Your task to perform on an android device: change the clock display to show seconds Image 0: 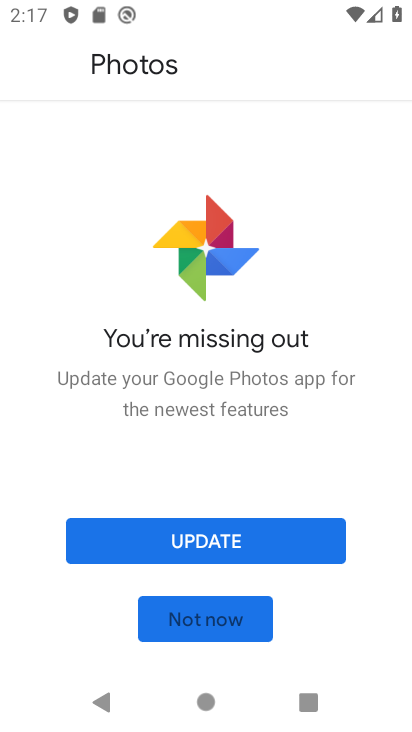
Step 0: press home button
Your task to perform on an android device: change the clock display to show seconds Image 1: 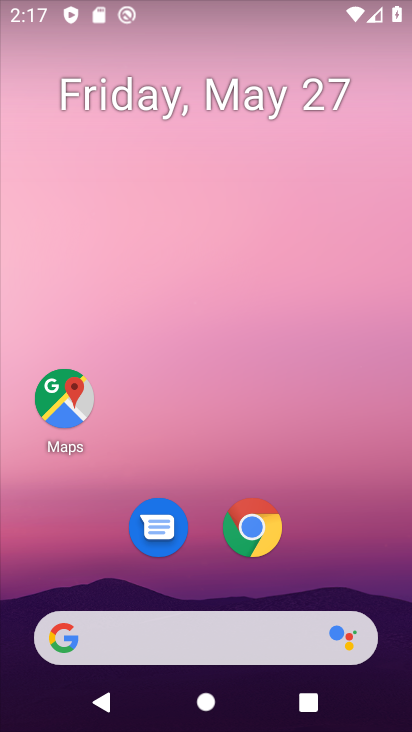
Step 1: drag from (260, 661) to (285, 4)
Your task to perform on an android device: change the clock display to show seconds Image 2: 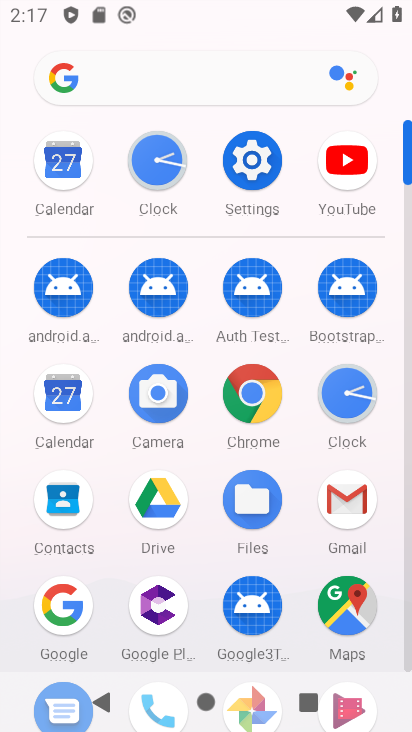
Step 2: click (147, 160)
Your task to perform on an android device: change the clock display to show seconds Image 3: 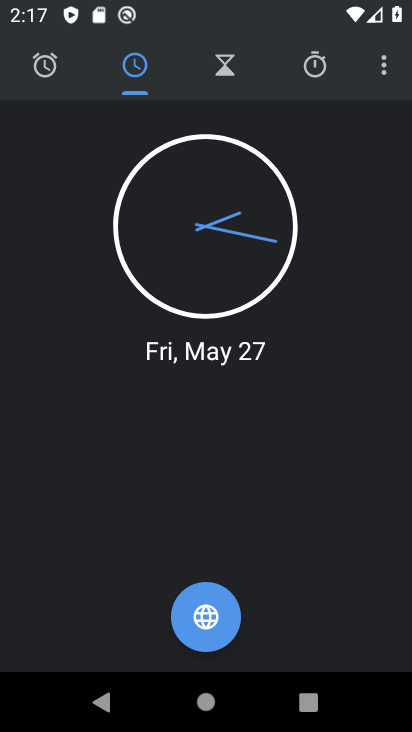
Step 3: click (386, 65)
Your task to perform on an android device: change the clock display to show seconds Image 4: 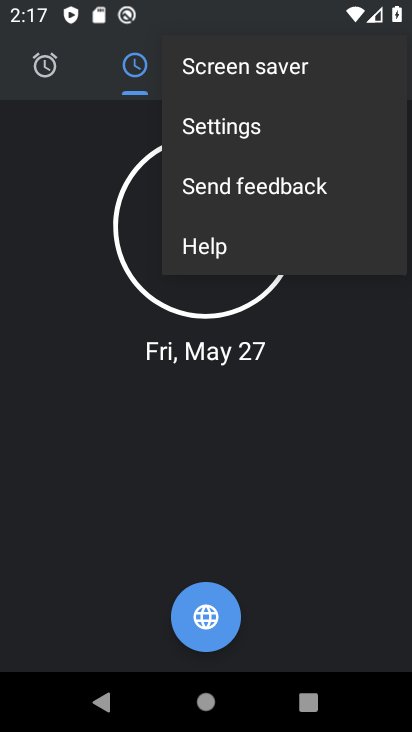
Step 4: click (252, 139)
Your task to perform on an android device: change the clock display to show seconds Image 5: 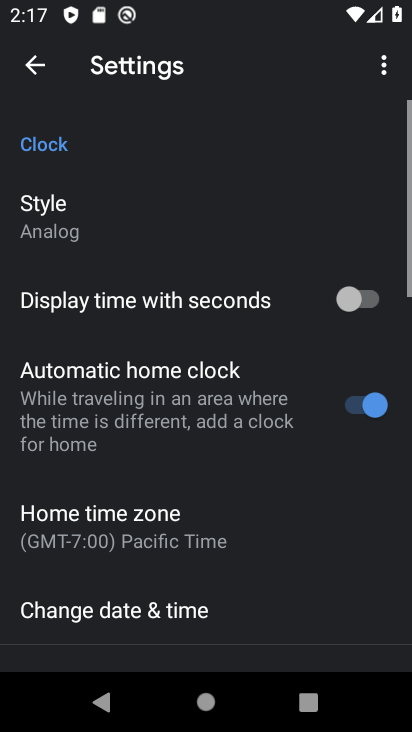
Step 5: click (367, 309)
Your task to perform on an android device: change the clock display to show seconds Image 6: 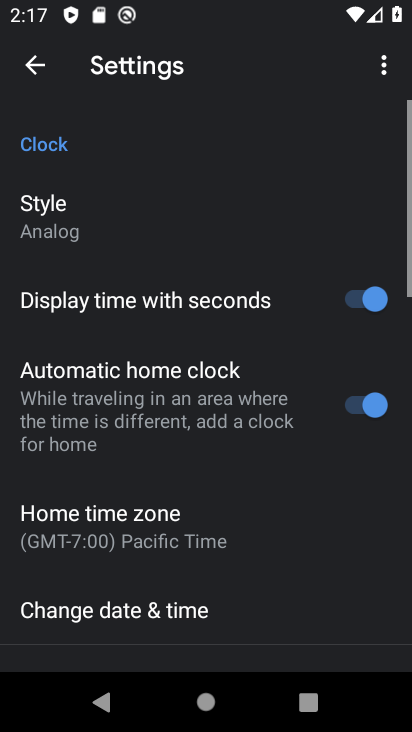
Step 6: task complete